Your task to perform on an android device: Go to network settings Image 0: 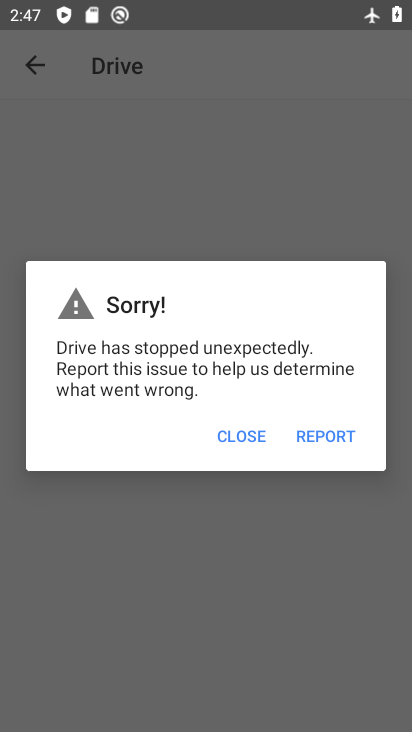
Step 0: press home button
Your task to perform on an android device: Go to network settings Image 1: 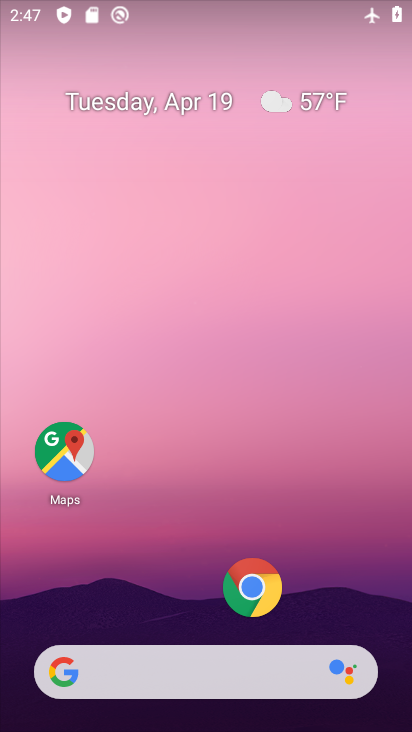
Step 1: drag from (168, 571) to (290, 2)
Your task to perform on an android device: Go to network settings Image 2: 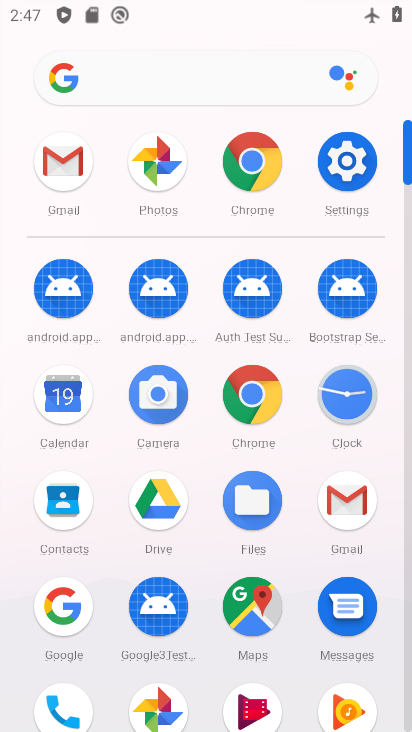
Step 2: click (347, 156)
Your task to perform on an android device: Go to network settings Image 3: 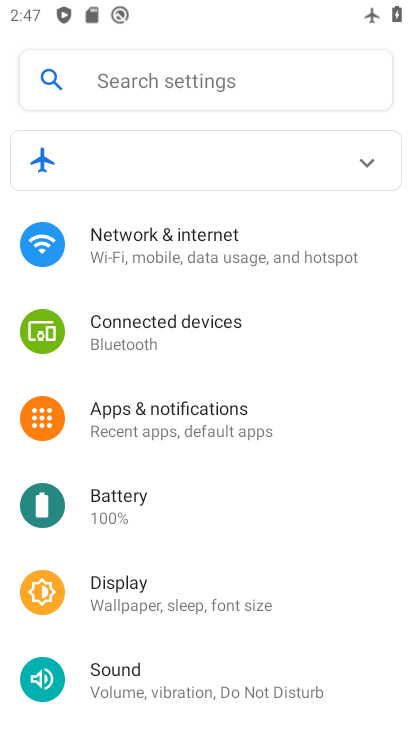
Step 3: click (191, 252)
Your task to perform on an android device: Go to network settings Image 4: 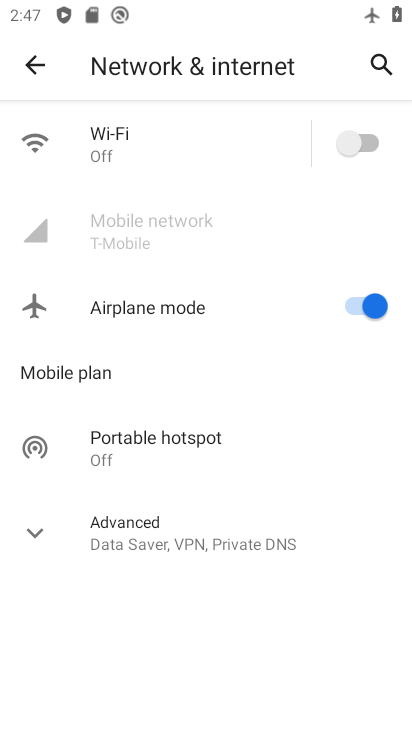
Step 4: task complete